Your task to perform on an android device: Do I have any events tomorrow? Image 0: 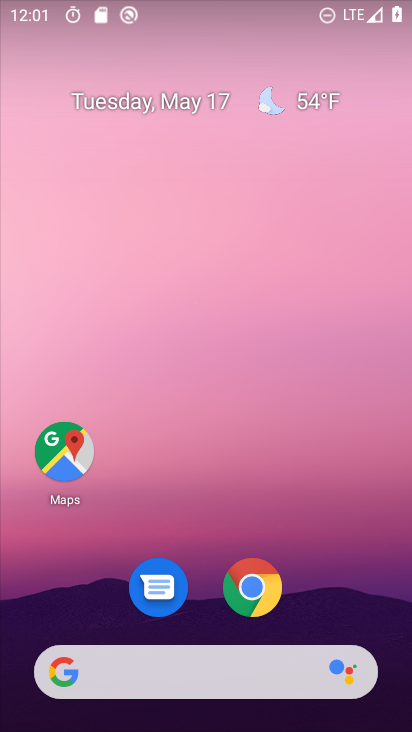
Step 0: drag from (196, 628) to (206, 396)
Your task to perform on an android device: Do I have any events tomorrow? Image 1: 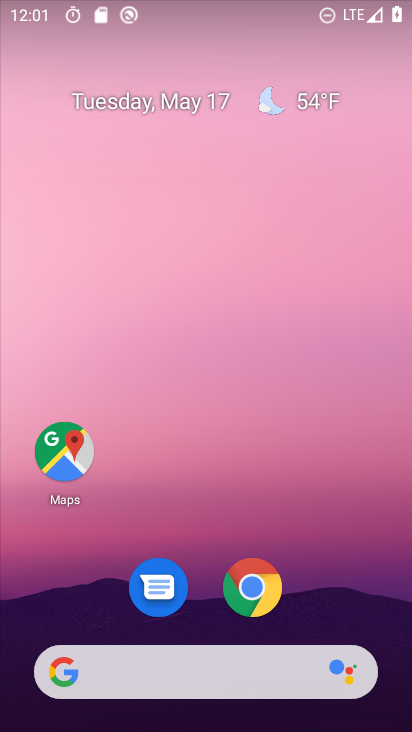
Step 1: drag from (215, 669) to (264, 278)
Your task to perform on an android device: Do I have any events tomorrow? Image 2: 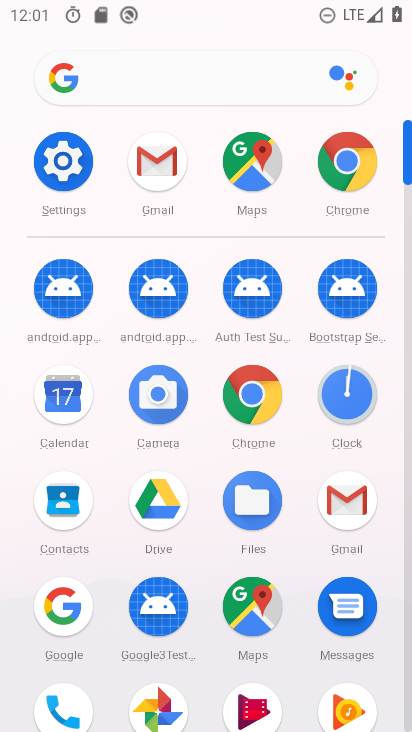
Step 2: click (61, 160)
Your task to perform on an android device: Do I have any events tomorrow? Image 3: 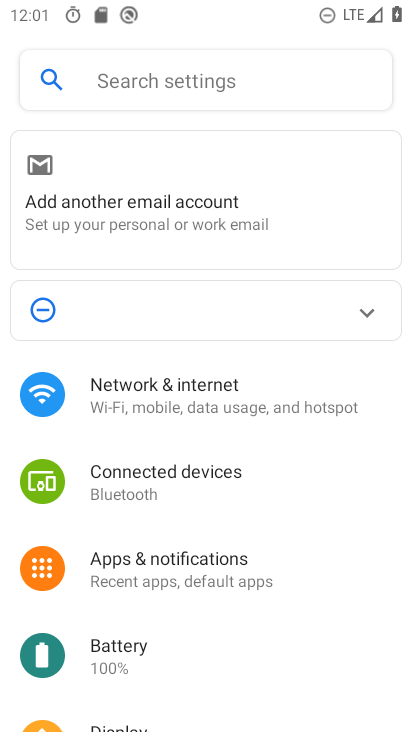
Step 3: drag from (176, 642) to (256, 158)
Your task to perform on an android device: Do I have any events tomorrow? Image 4: 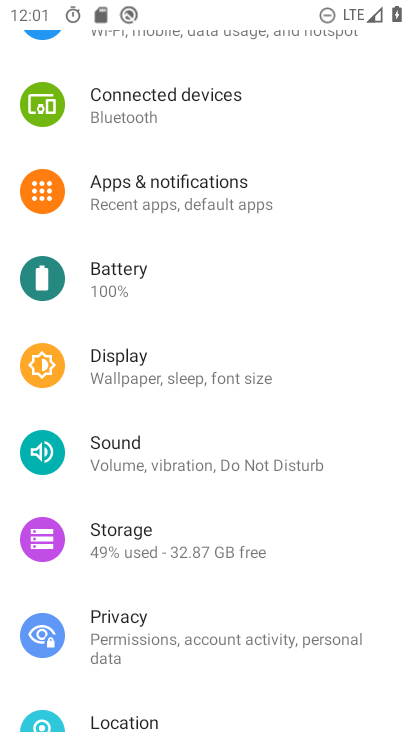
Step 4: drag from (193, 612) to (211, 365)
Your task to perform on an android device: Do I have any events tomorrow? Image 5: 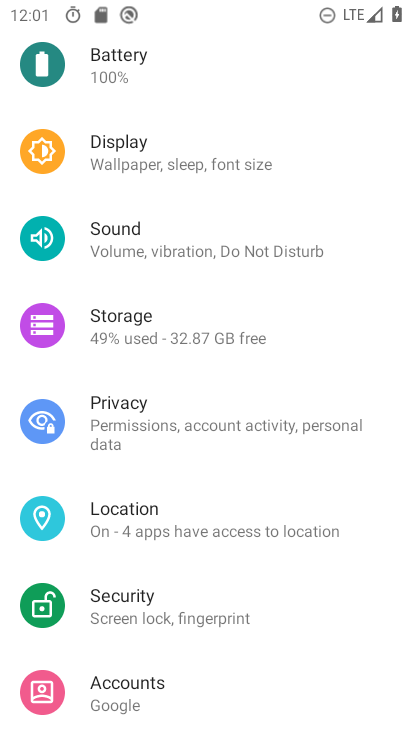
Step 5: press home button
Your task to perform on an android device: Do I have any events tomorrow? Image 6: 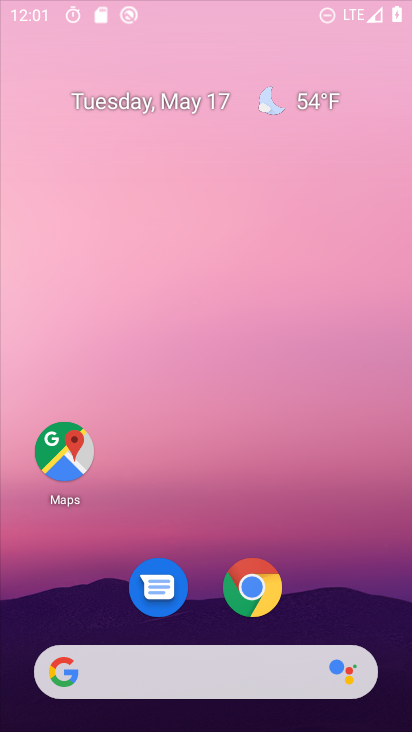
Step 6: drag from (192, 656) to (203, 9)
Your task to perform on an android device: Do I have any events tomorrow? Image 7: 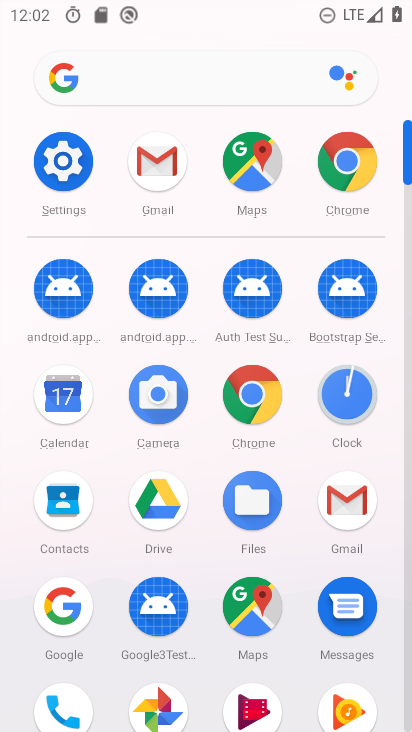
Step 7: click (49, 386)
Your task to perform on an android device: Do I have any events tomorrow? Image 8: 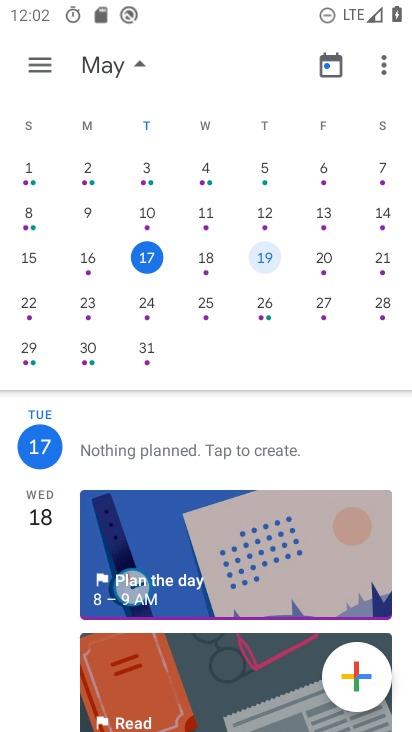
Step 8: click (332, 257)
Your task to perform on an android device: Do I have any events tomorrow? Image 9: 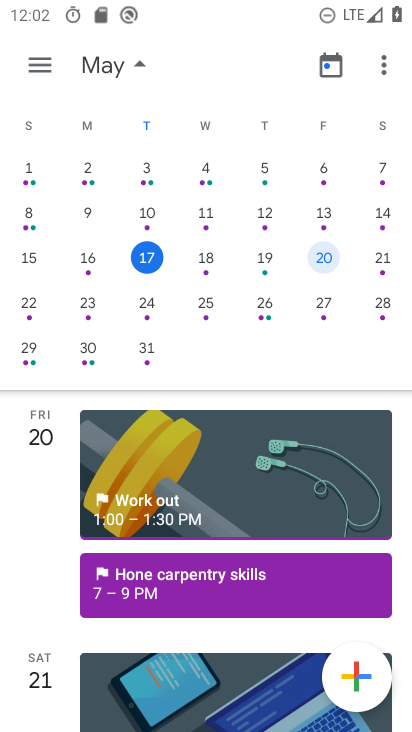
Step 9: drag from (260, 559) to (282, 282)
Your task to perform on an android device: Do I have any events tomorrow? Image 10: 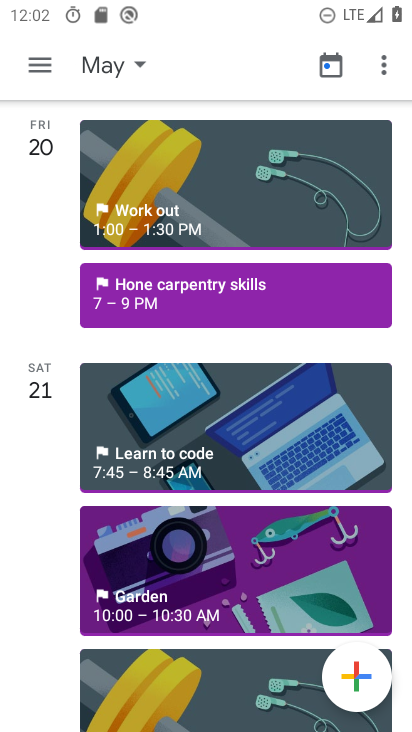
Step 10: drag from (220, 109) to (217, 523)
Your task to perform on an android device: Do I have any events tomorrow? Image 11: 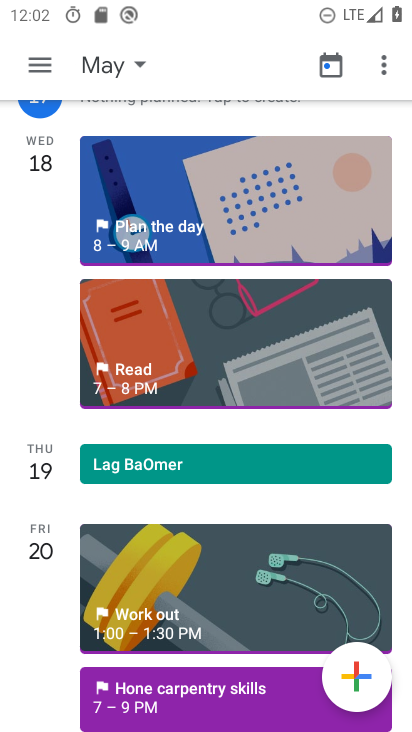
Step 11: drag from (218, 107) to (199, 665)
Your task to perform on an android device: Do I have any events tomorrow? Image 12: 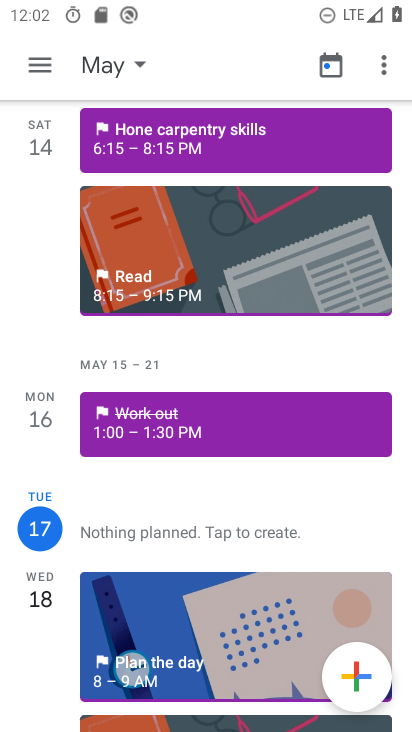
Step 12: click (129, 73)
Your task to perform on an android device: Do I have any events tomorrow? Image 13: 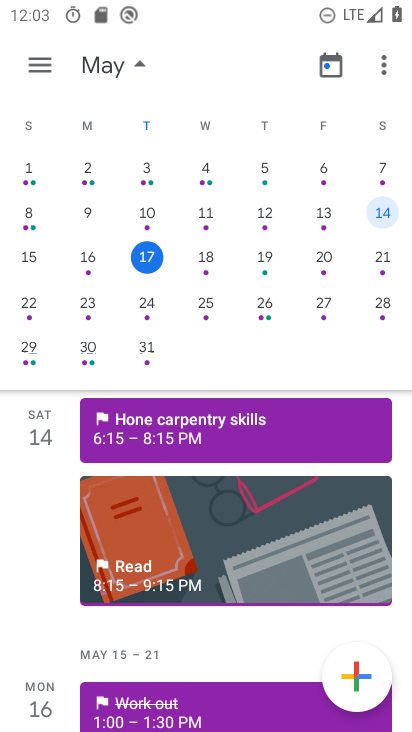
Step 13: click (201, 251)
Your task to perform on an android device: Do I have any events tomorrow? Image 14: 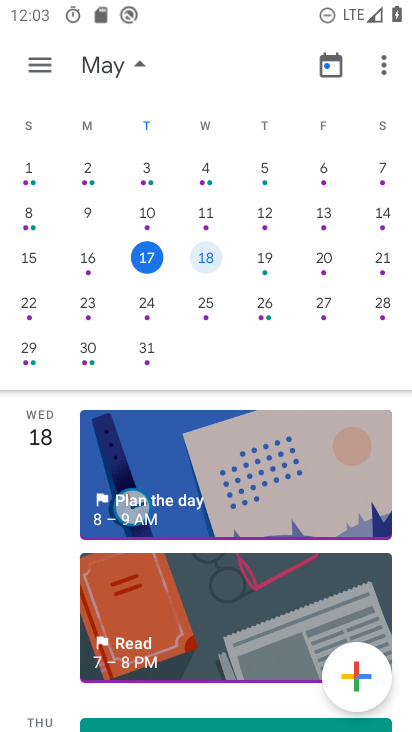
Step 14: drag from (254, 612) to (274, 398)
Your task to perform on an android device: Do I have any events tomorrow? Image 15: 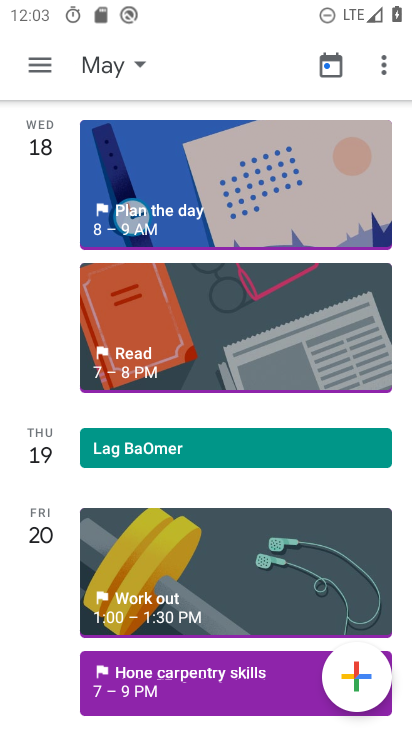
Step 15: drag from (246, 619) to (255, 192)
Your task to perform on an android device: Do I have any events tomorrow? Image 16: 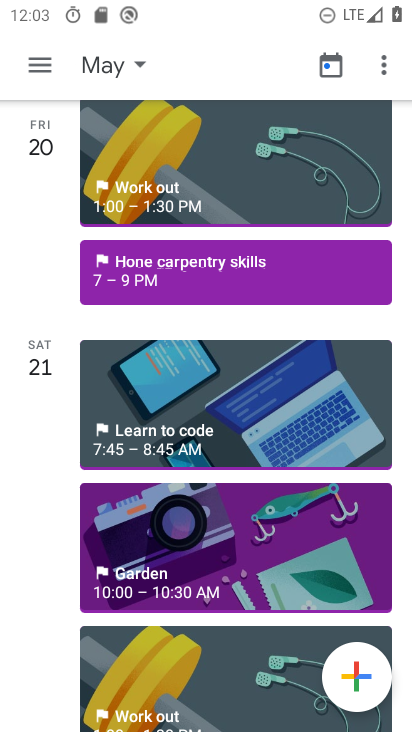
Step 16: drag from (252, 606) to (279, 262)
Your task to perform on an android device: Do I have any events tomorrow? Image 17: 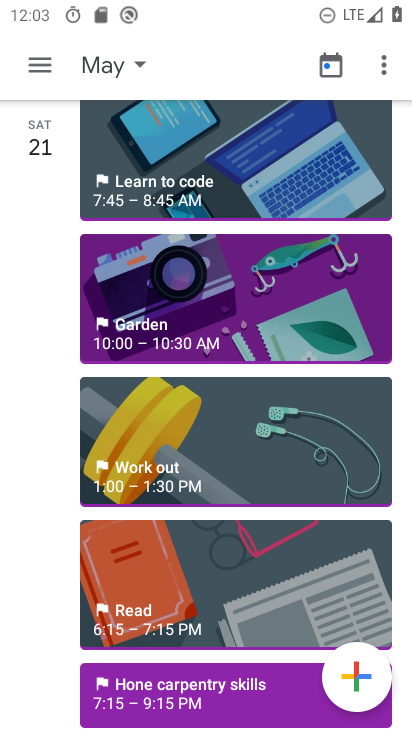
Step 17: drag from (286, 601) to (273, 337)
Your task to perform on an android device: Do I have any events tomorrow? Image 18: 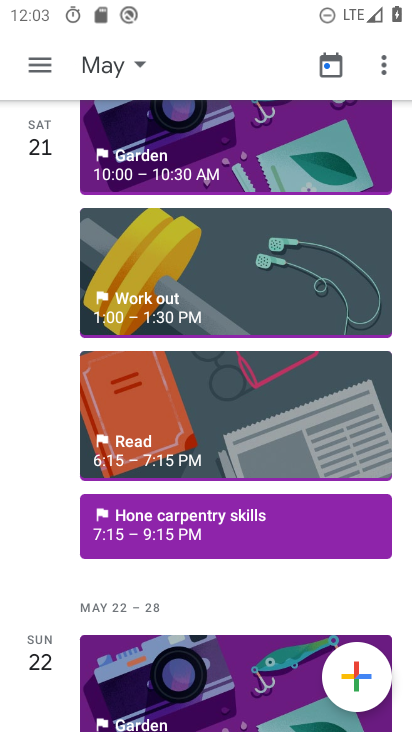
Step 18: drag from (180, 539) to (230, 258)
Your task to perform on an android device: Do I have any events tomorrow? Image 19: 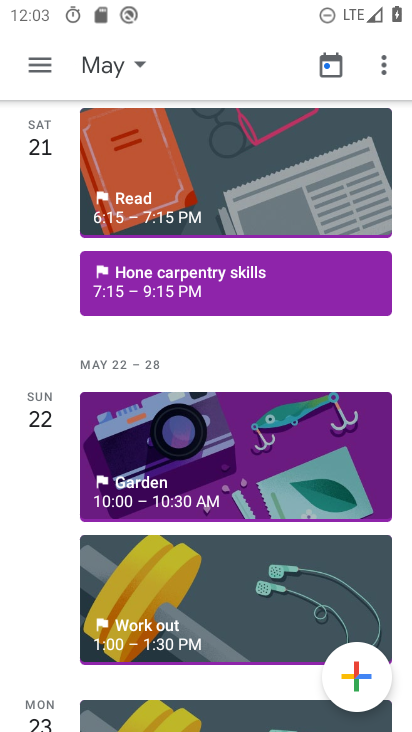
Step 19: drag from (239, 233) to (306, 686)
Your task to perform on an android device: Do I have any events tomorrow? Image 20: 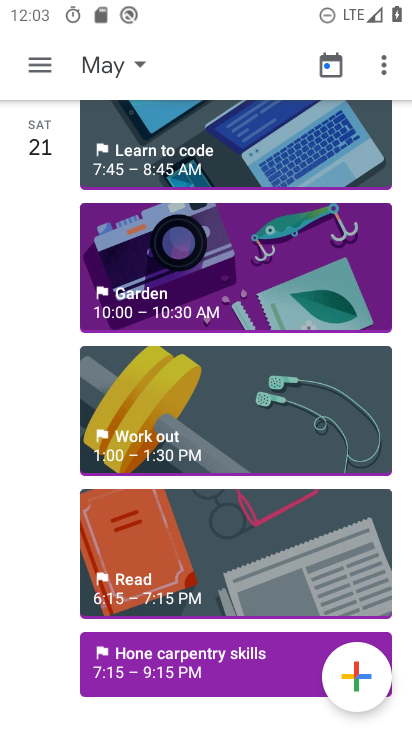
Step 20: drag from (297, 236) to (409, 412)
Your task to perform on an android device: Do I have any events tomorrow? Image 21: 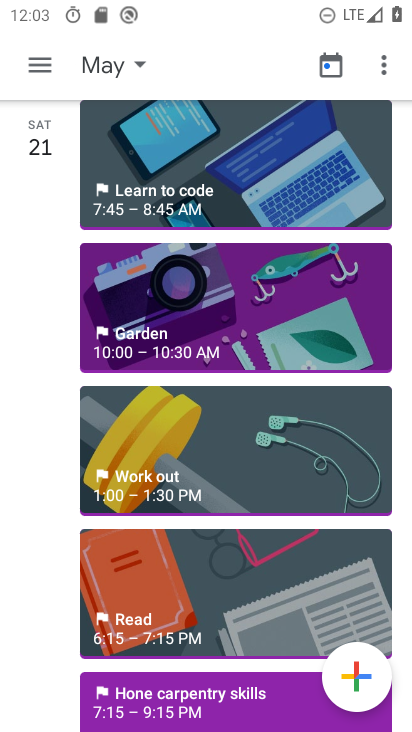
Step 21: drag from (287, 191) to (380, 312)
Your task to perform on an android device: Do I have any events tomorrow? Image 22: 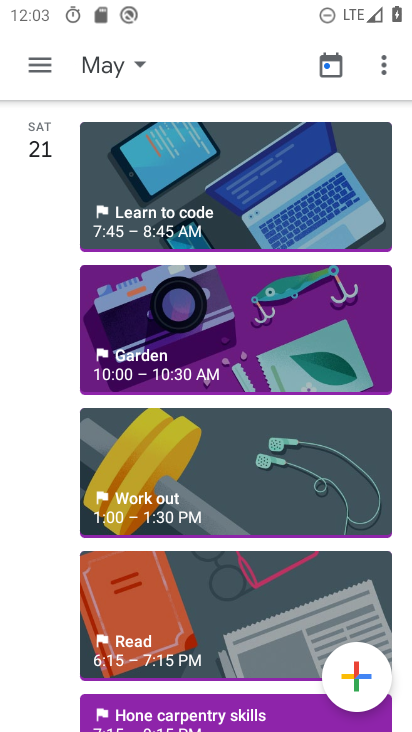
Step 22: click (120, 64)
Your task to perform on an android device: Do I have any events tomorrow? Image 23: 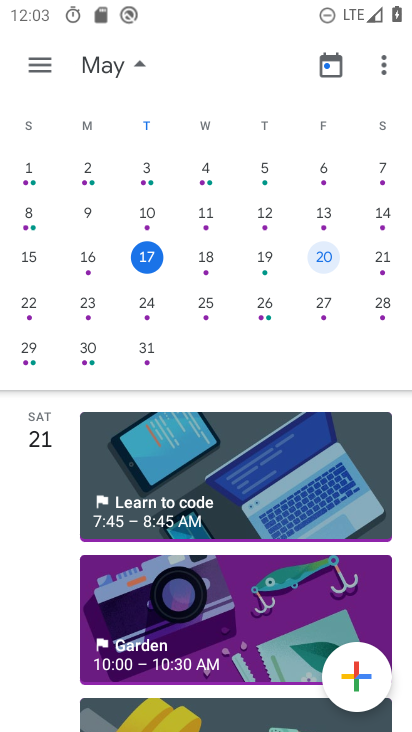
Step 23: click (202, 253)
Your task to perform on an android device: Do I have any events tomorrow? Image 24: 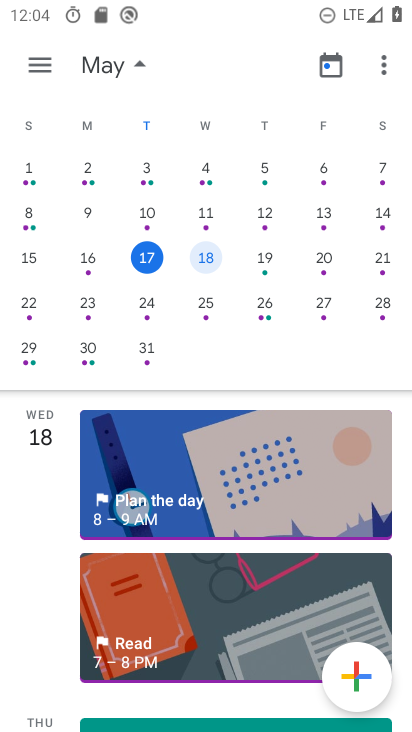
Step 24: click (198, 249)
Your task to perform on an android device: Do I have any events tomorrow? Image 25: 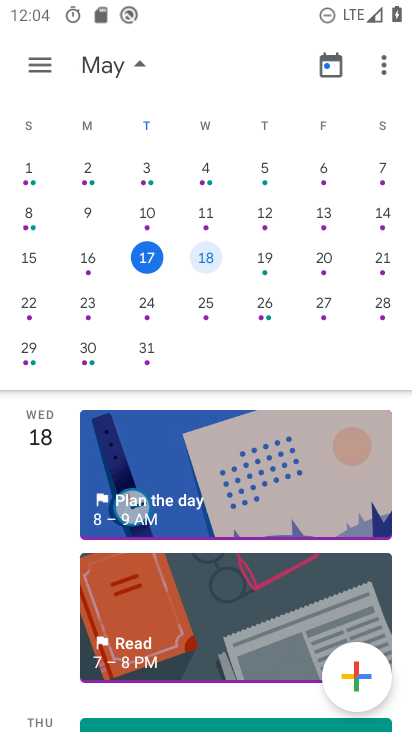
Step 25: task complete